Your task to perform on an android device: turn off sleep mode Image 0: 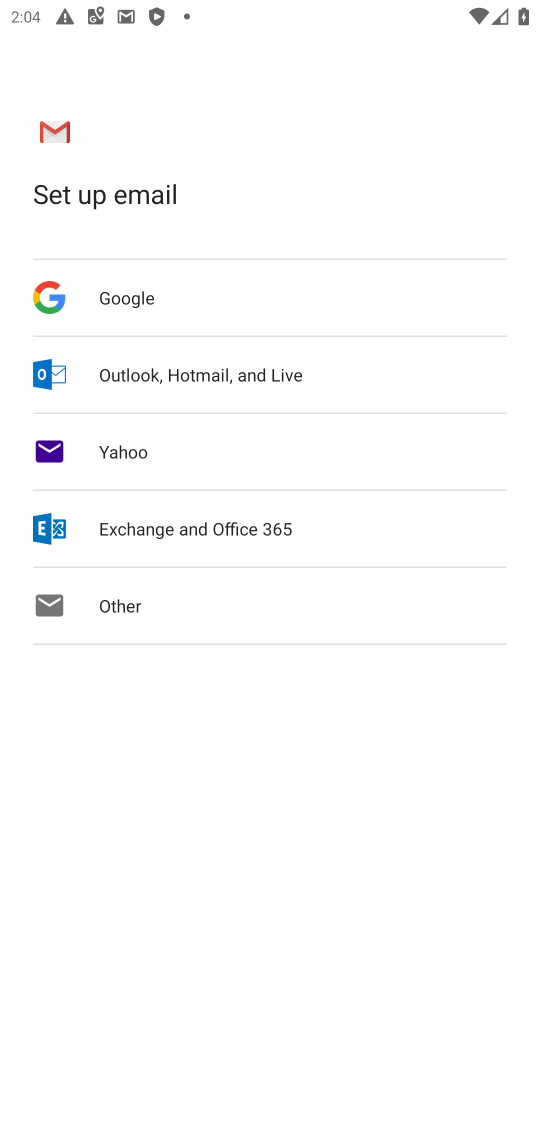
Step 0: press home button
Your task to perform on an android device: turn off sleep mode Image 1: 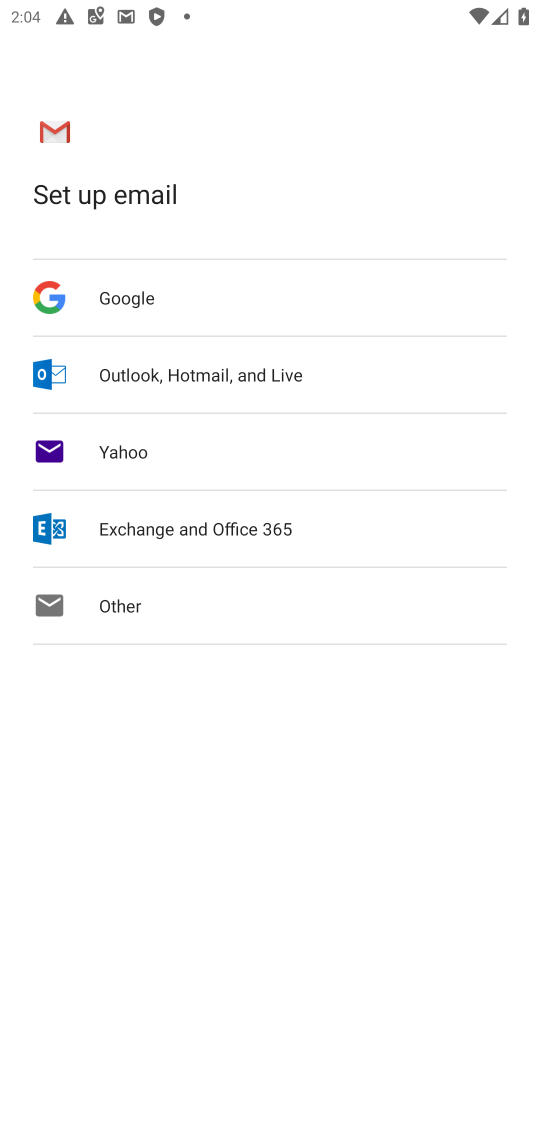
Step 1: press home button
Your task to perform on an android device: turn off sleep mode Image 2: 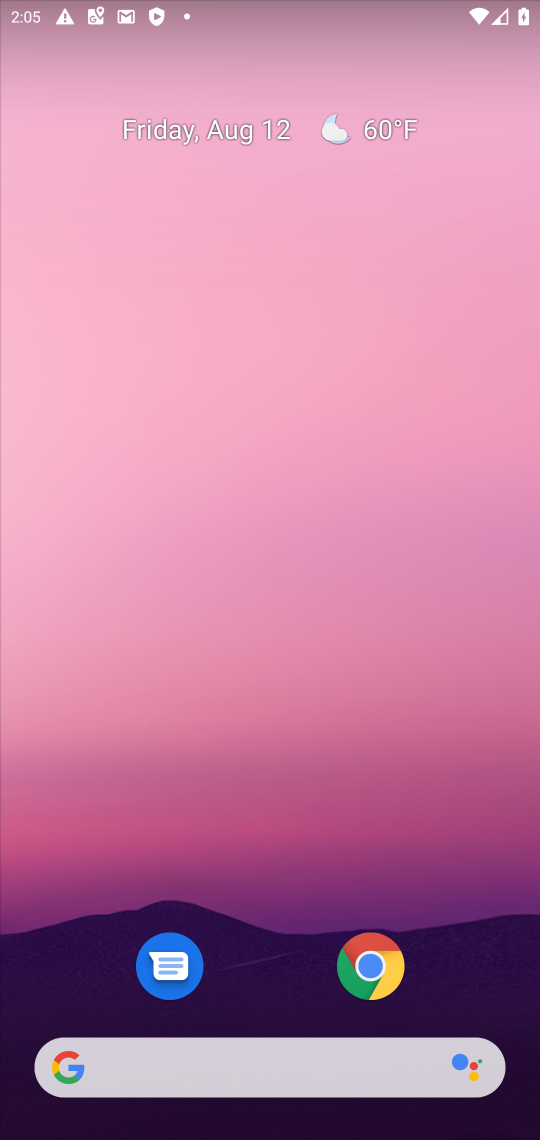
Step 2: drag from (296, 943) to (259, 173)
Your task to perform on an android device: turn off sleep mode Image 3: 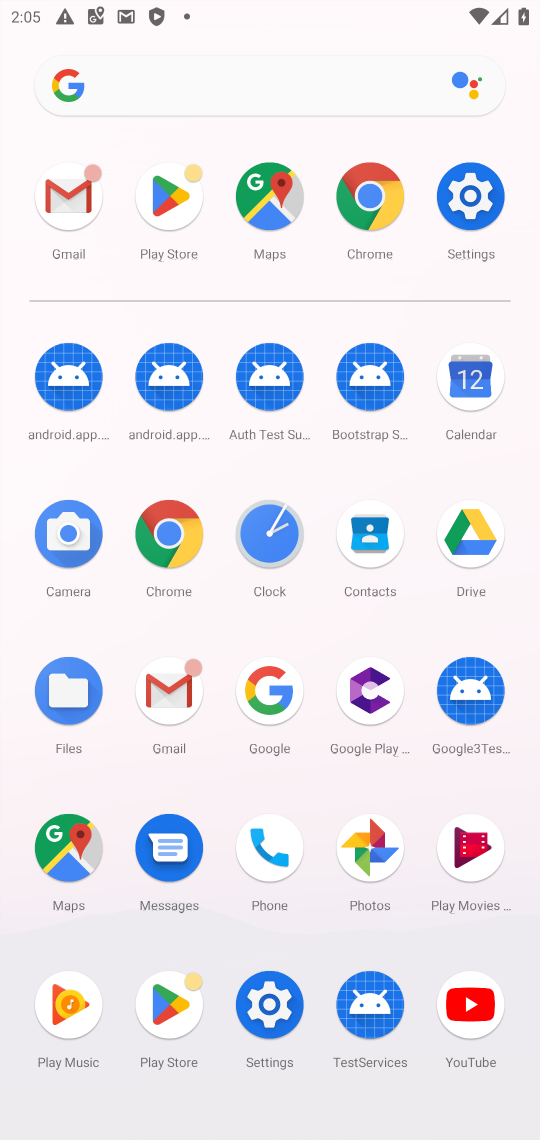
Step 3: click (281, 1009)
Your task to perform on an android device: turn off sleep mode Image 4: 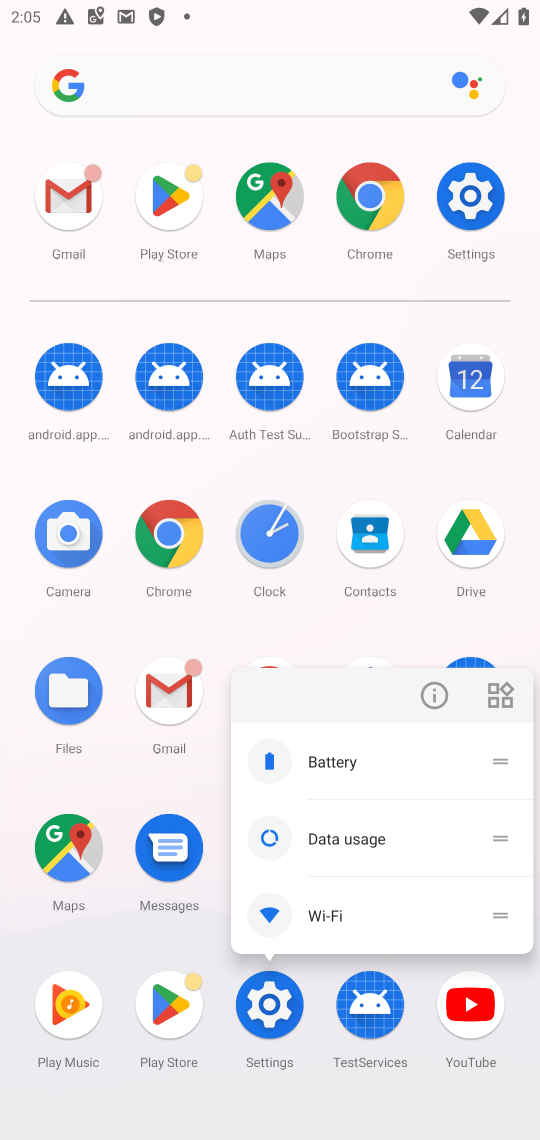
Step 4: click (273, 1006)
Your task to perform on an android device: turn off sleep mode Image 5: 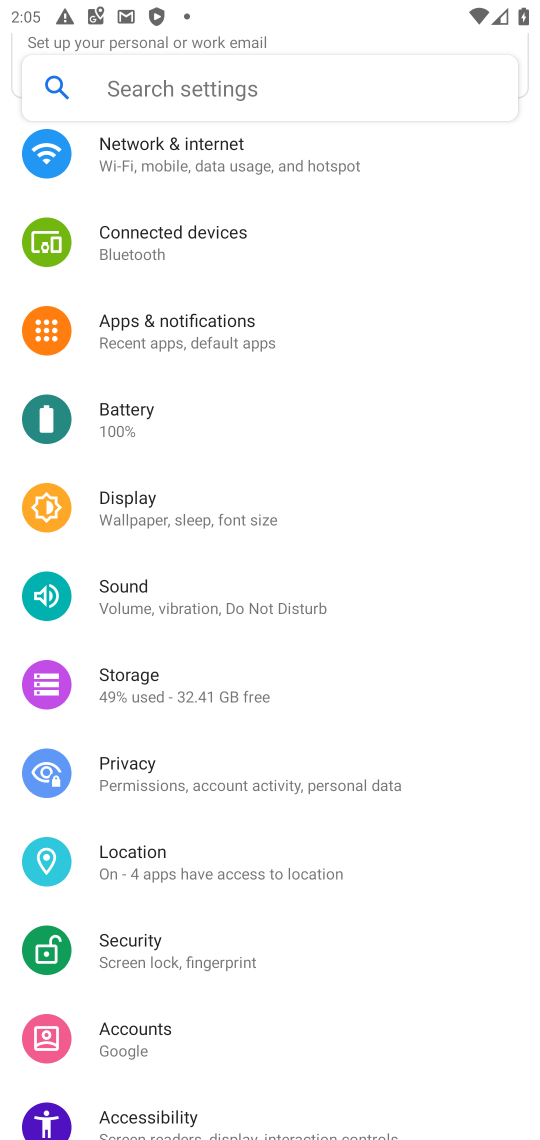
Step 5: click (184, 506)
Your task to perform on an android device: turn off sleep mode Image 6: 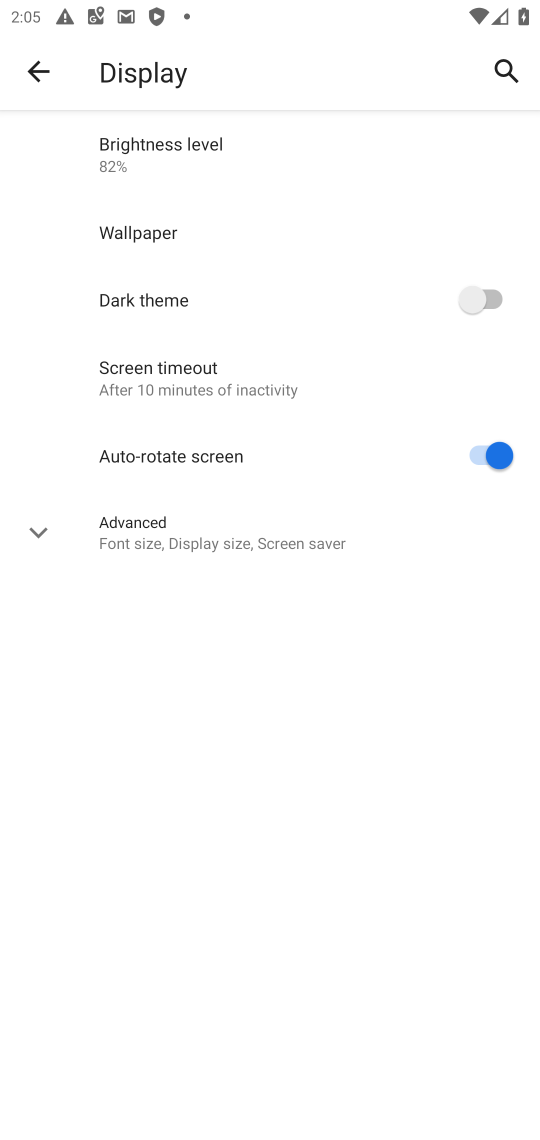
Step 6: click (175, 391)
Your task to perform on an android device: turn off sleep mode Image 7: 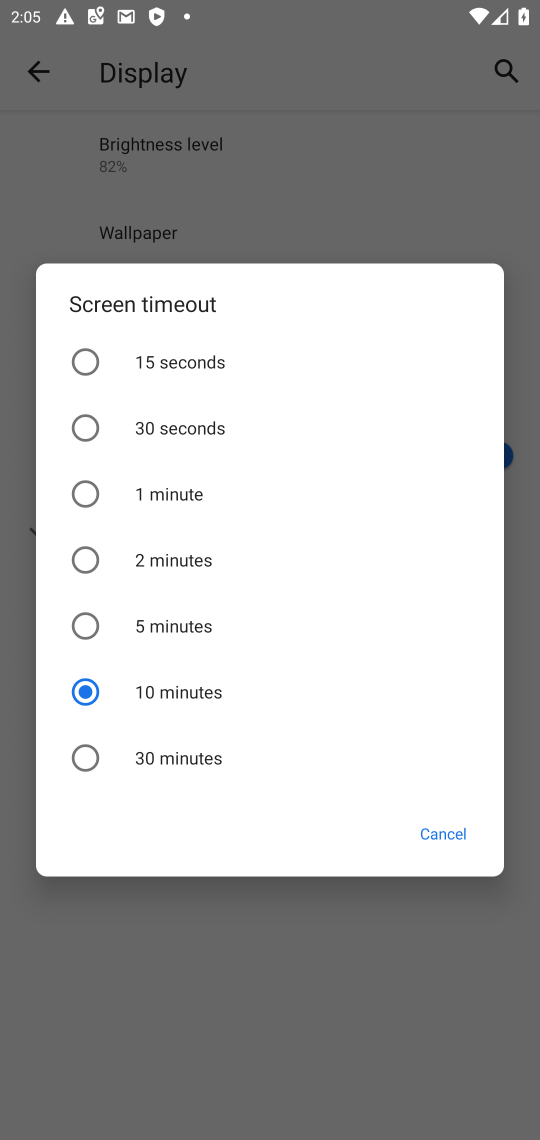
Step 7: task complete